Your task to perform on an android device: star an email in the gmail app Image 0: 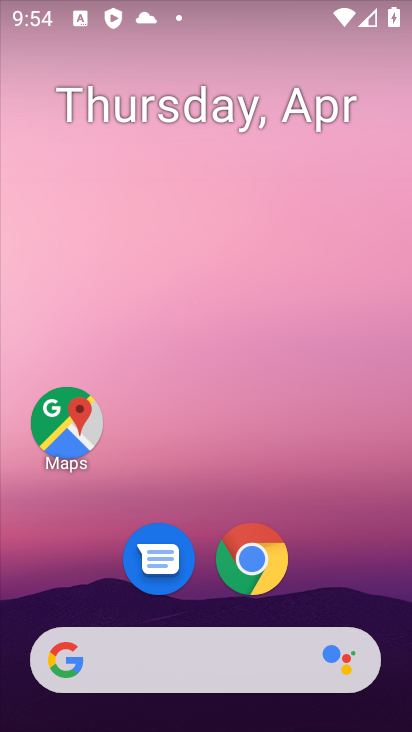
Step 0: drag from (246, 670) to (117, 259)
Your task to perform on an android device: star an email in the gmail app Image 1: 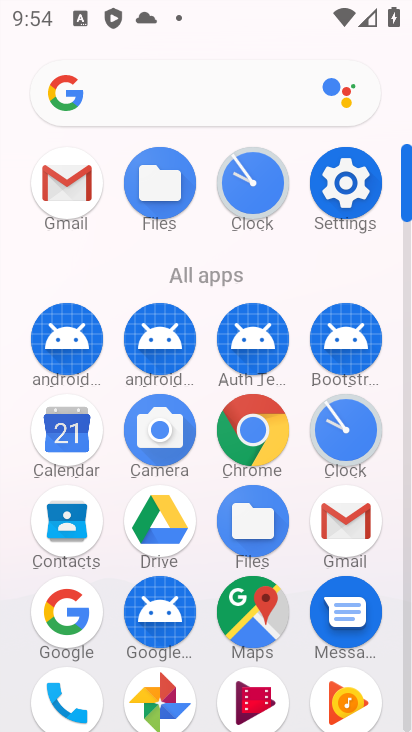
Step 1: click (66, 199)
Your task to perform on an android device: star an email in the gmail app Image 2: 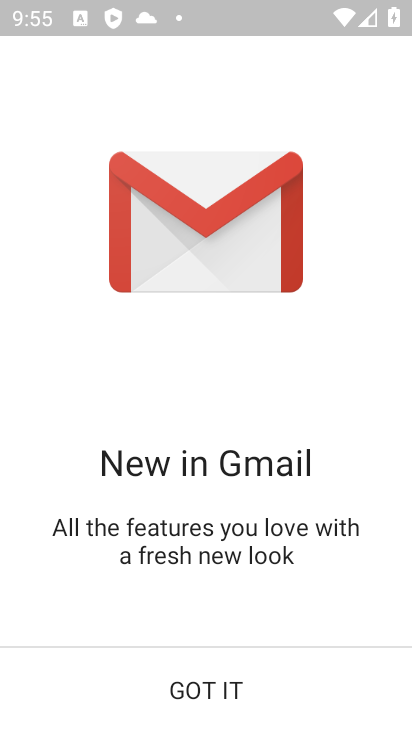
Step 2: click (203, 704)
Your task to perform on an android device: star an email in the gmail app Image 3: 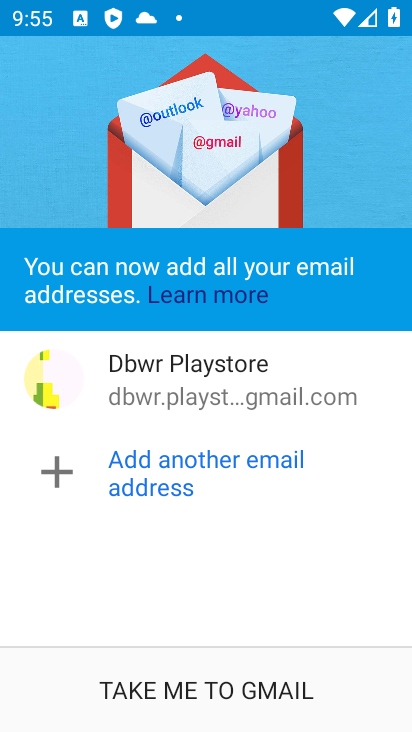
Step 3: click (206, 698)
Your task to perform on an android device: star an email in the gmail app Image 4: 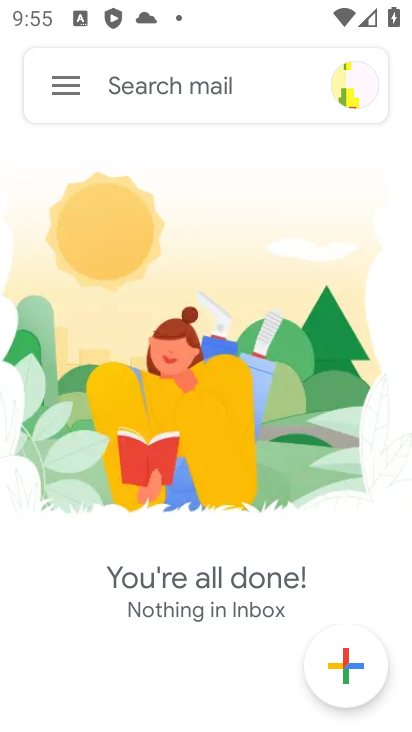
Step 4: task complete